Your task to perform on an android device: change the clock style Image 0: 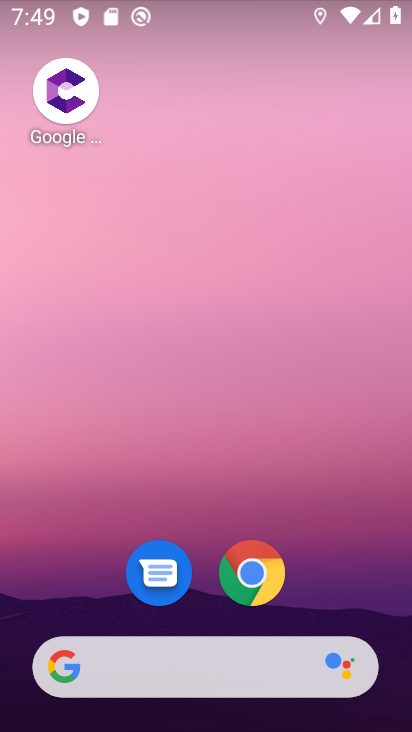
Step 0: click (404, 12)
Your task to perform on an android device: change the clock style Image 1: 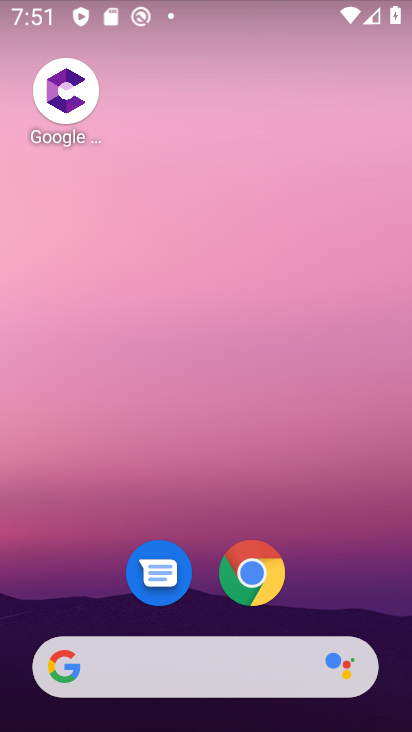
Step 1: drag from (233, 620) to (369, 121)
Your task to perform on an android device: change the clock style Image 2: 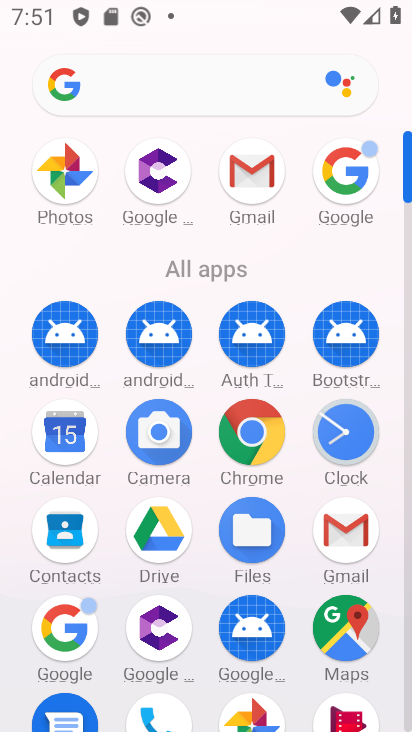
Step 2: drag from (308, 267) to (303, 129)
Your task to perform on an android device: change the clock style Image 3: 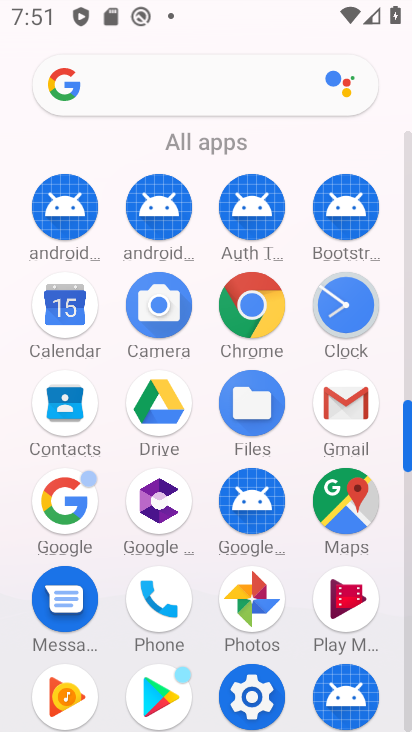
Step 3: drag from (252, 588) to (286, 229)
Your task to perform on an android device: change the clock style Image 4: 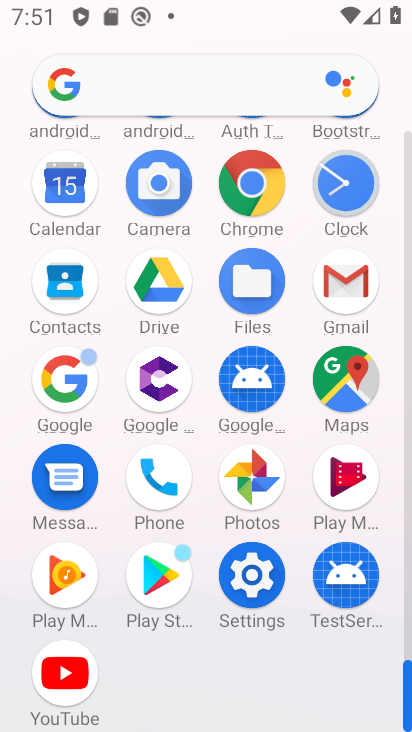
Step 4: click (349, 179)
Your task to perform on an android device: change the clock style Image 5: 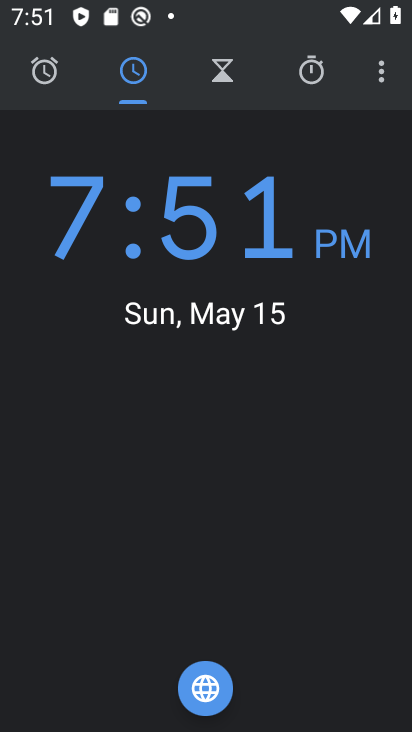
Step 5: click (384, 65)
Your task to perform on an android device: change the clock style Image 6: 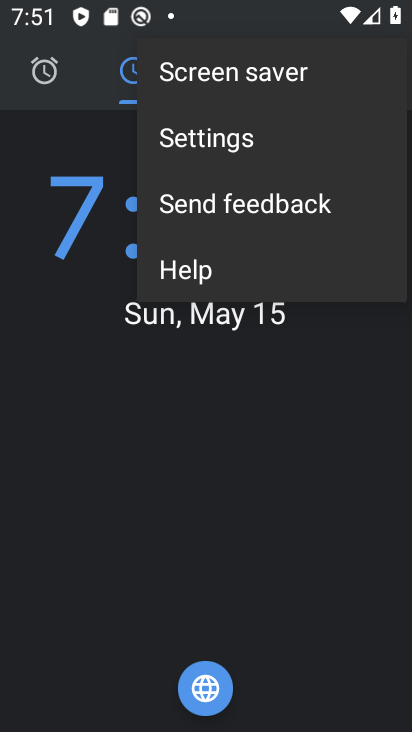
Step 6: click (281, 137)
Your task to perform on an android device: change the clock style Image 7: 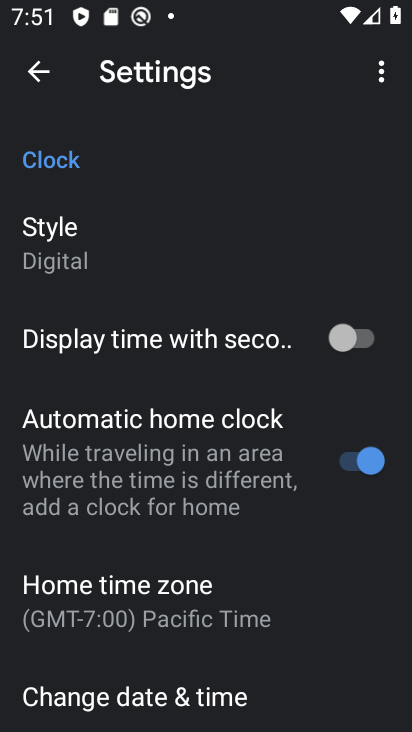
Step 7: drag from (175, 520) to (224, 338)
Your task to perform on an android device: change the clock style Image 8: 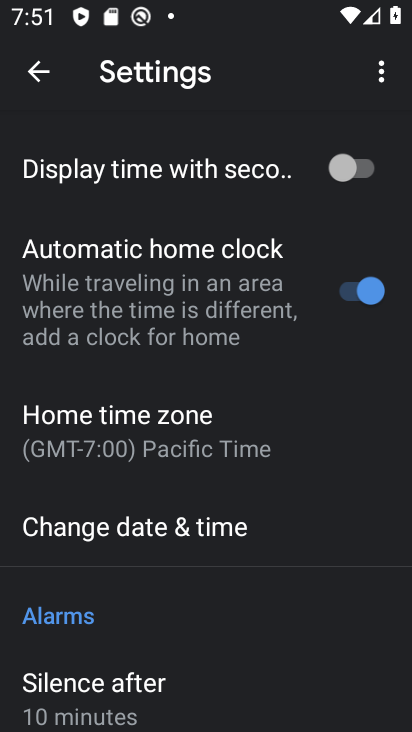
Step 8: drag from (202, 218) to (218, 442)
Your task to perform on an android device: change the clock style Image 9: 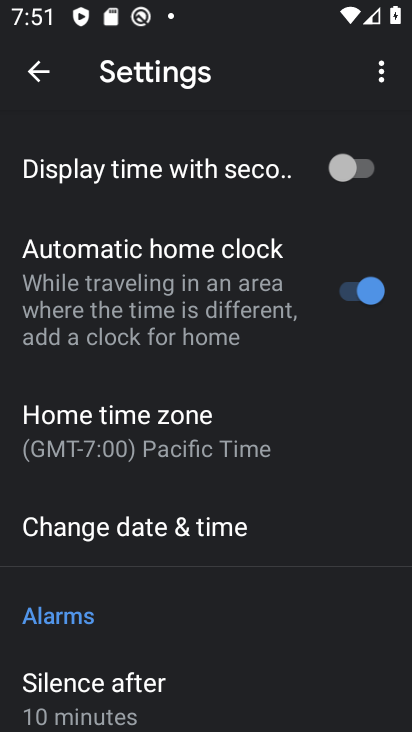
Step 9: drag from (175, 127) to (160, 502)
Your task to perform on an android device: change the clock style Image 10: 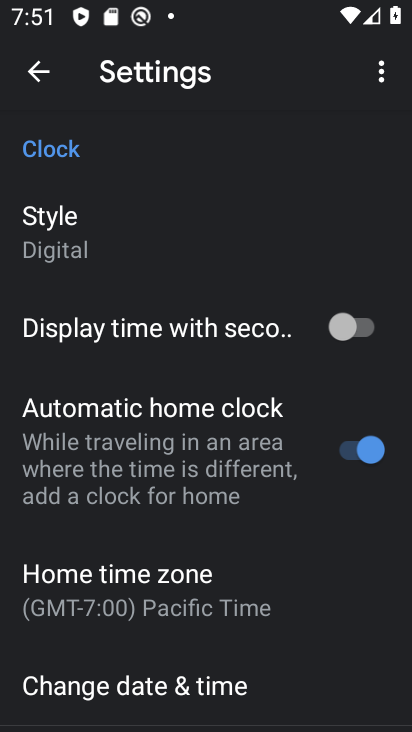
Step 10: click (71, 245)
Your task to perform on an android device: change the clock style Image 11: 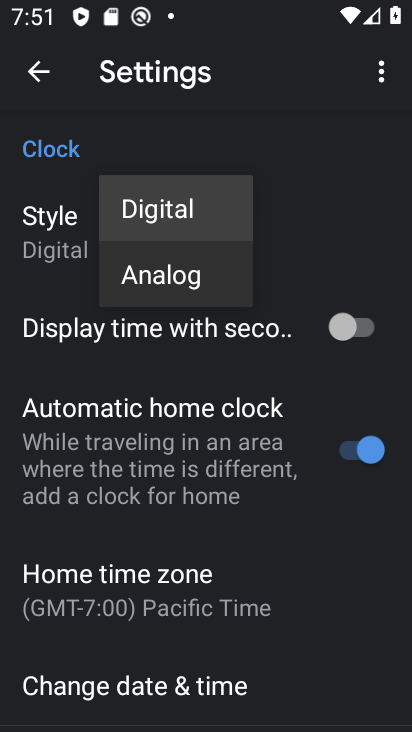
Step 11: click (186, 278)
Your task to perform on an android device: change the clock style Image 12: 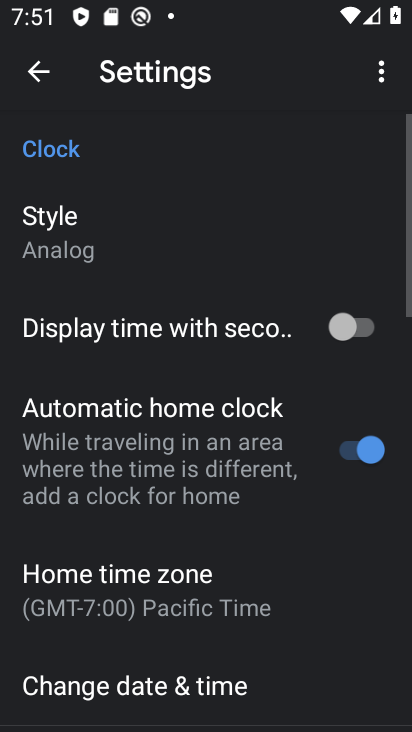
Step 12: task complete